Your task to perform on an android device: Go to Yahoo.com Image 0: 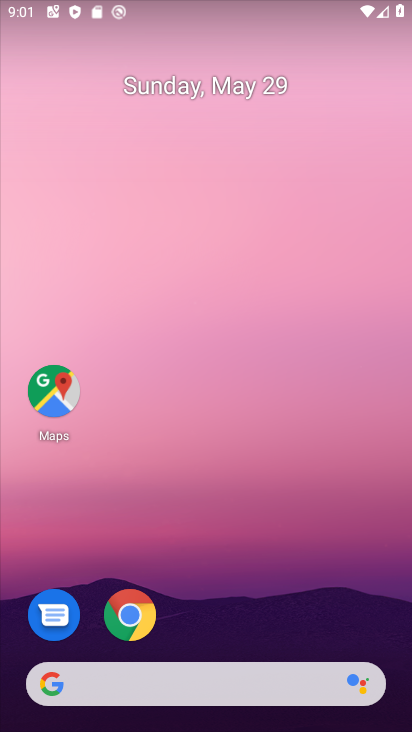
Step 0: click (135, 602)
Your task to perform on an android device: Go to Yahoo.com Image 1: 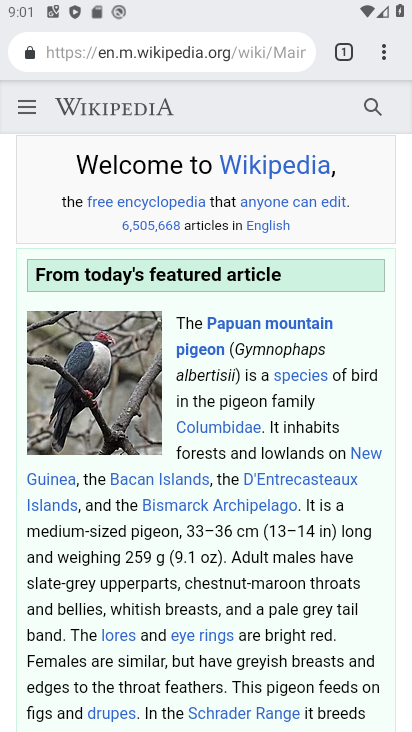
Step 1: click (198, 49)
Your task to perform on an android device: Go to Yahoo.com Image 2: 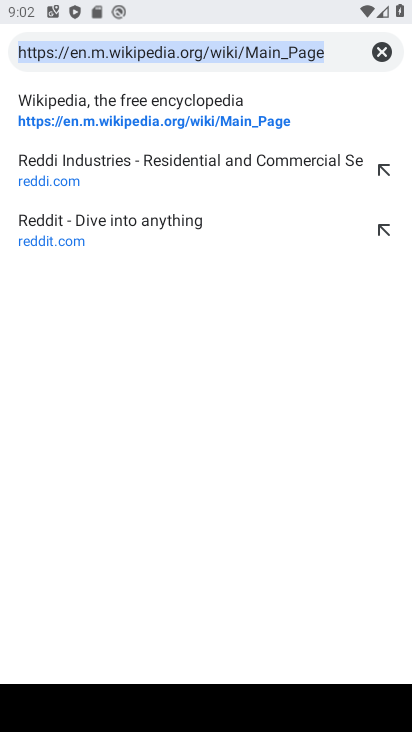
Step 2: type "yahoo.com"
Your task to perform on an android device: Go to Yahoo.com Image 3: 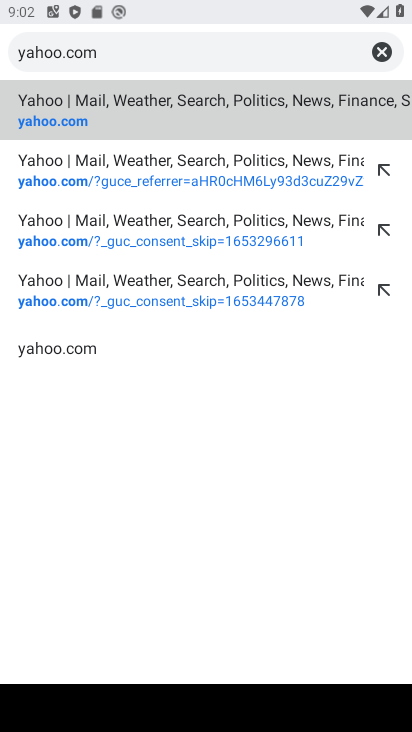
Step 3: click (116, 95)
Your task to perform on an android device: Go to Yahoo.com Image 4: 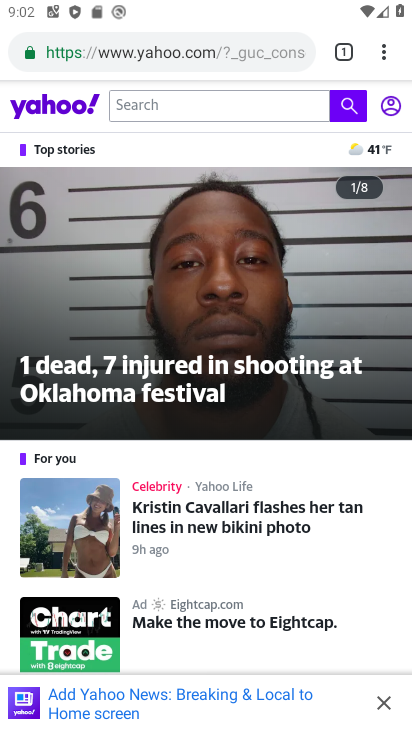
Step 4: task complete